Your task to perform on an android device: Open maps Image 0: 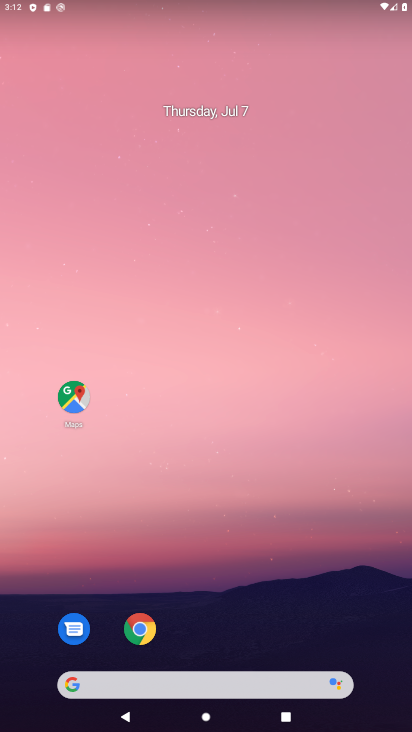
Step 0: click (66, 409)
Your task to perform on an android device: Open maps Image 1: 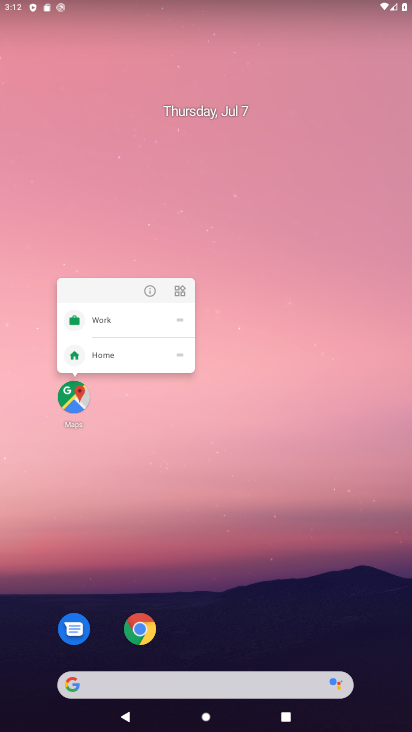
Step 1: click (68, 405)
Your task to perform on an android device: Open maps Image 2: 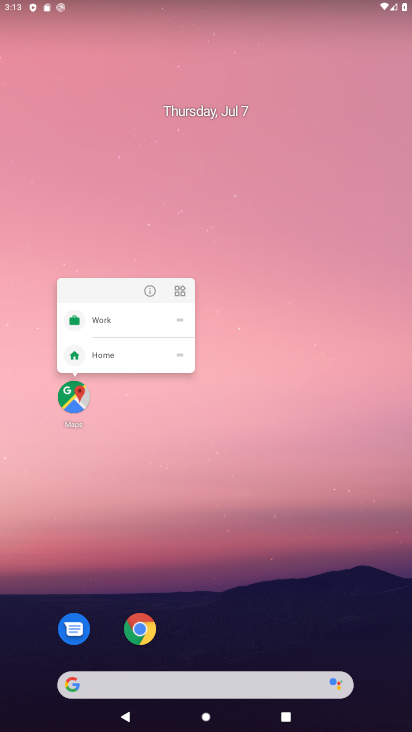
Step 2: click (68, 391)
Your task to perform on an android device: Open maps Image 3: 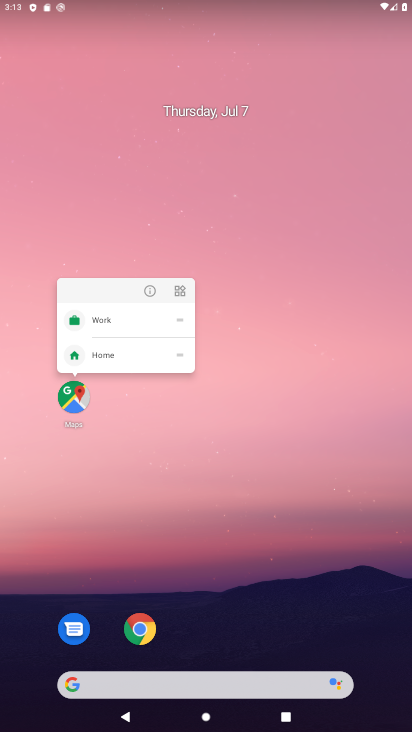
Step 3: click (70, 397)
Your task to perform on an android device: Open maps Image 4: 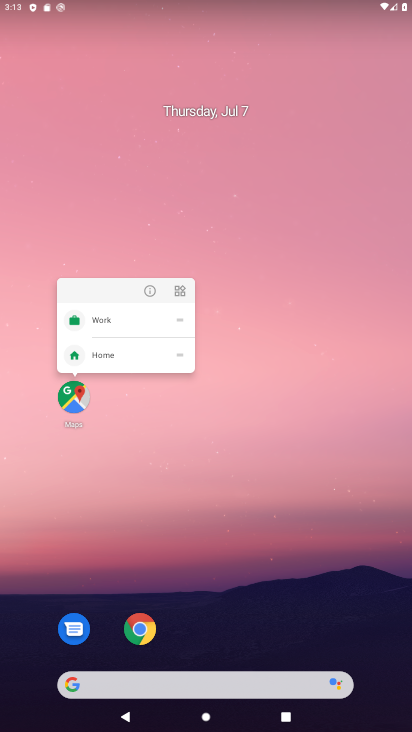
Step 4: click (67, 381)
Your task to perform on an android device: Open maps Image 5: 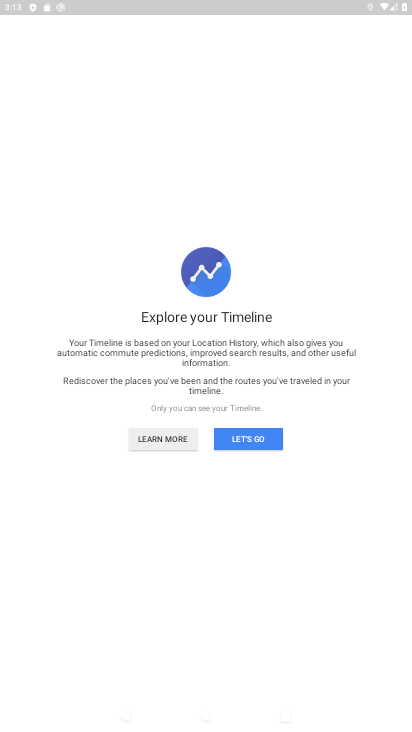
Step 5: click (243, 434)
Your task to perform on an android device: Open maps Image 6: 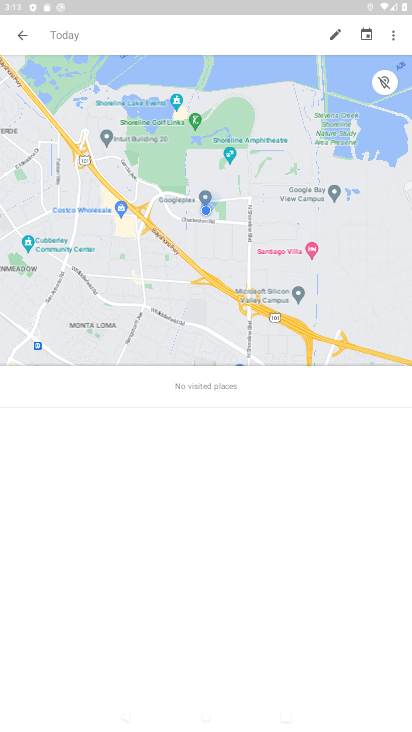
Step 6: task complete